Your task to perform on an android device: Go to Google Image 0: 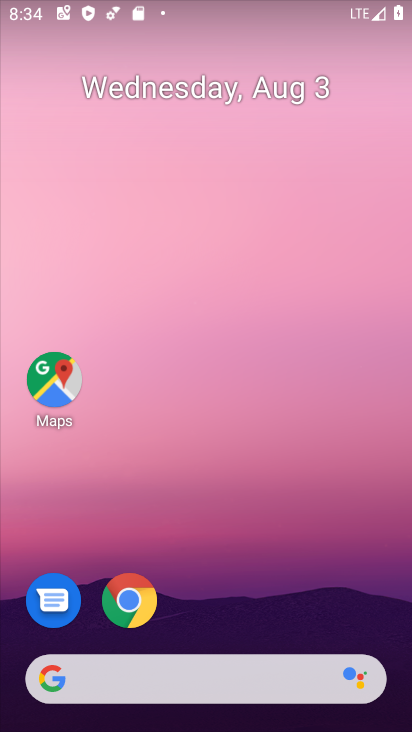
Step 0: click (43, 675)
Your task to perform on an android device: Go to Google Image 1: 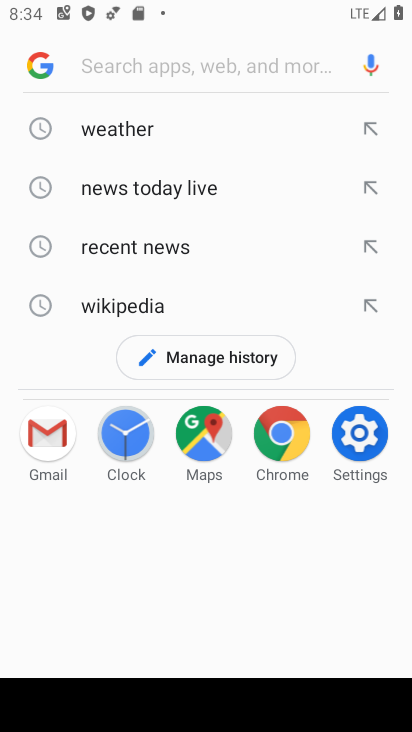
Step 1: click (44, 65)
Your task to perform on an android device: Go to Google Image 2: 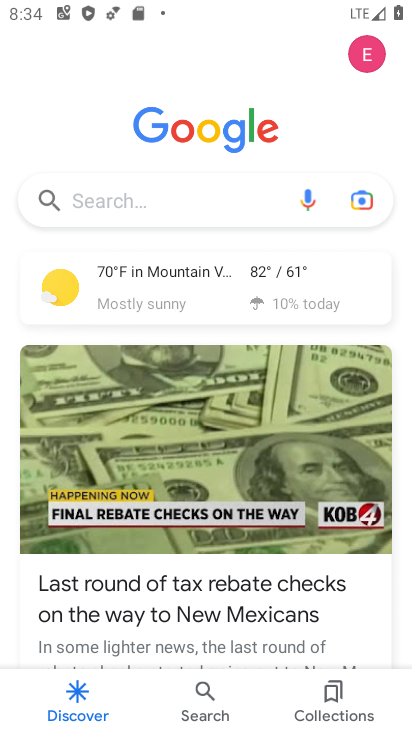
Step 2: task complete